Your task to perform on an android device: open chrome privacy settings Image 0: 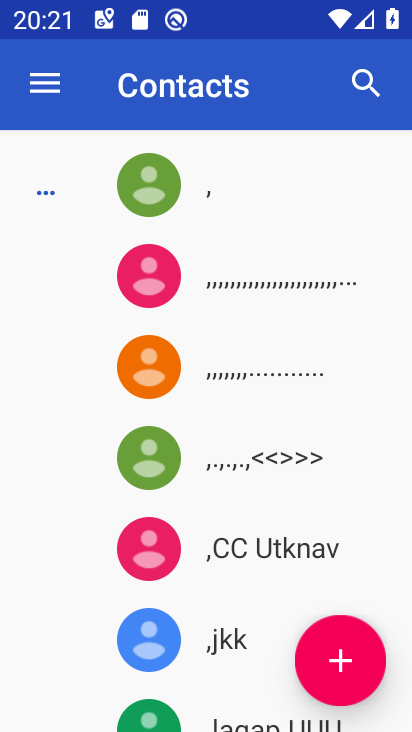
Step 0: press home button
Your task to perform on an android device: open chrome privacy settings Image 1: 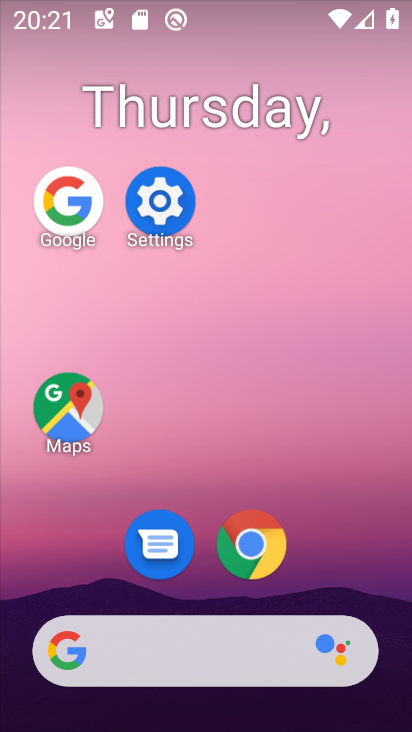
Step 1: drag from (222, 688) to (223, 241)
Your task to perform on an android device: open chrome privacy settings Image 2: 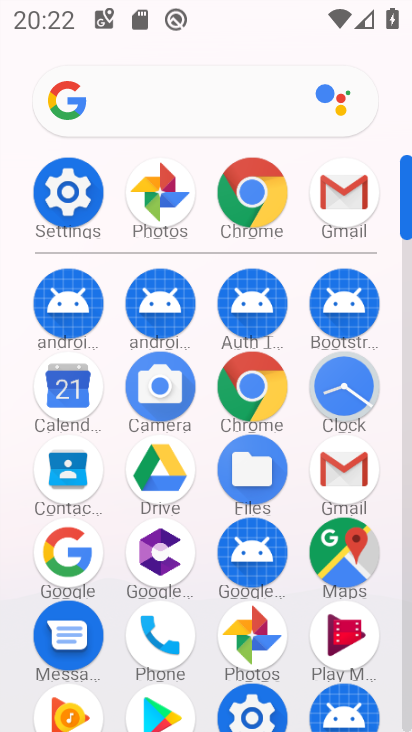
Step 2: click (73, 205)
Your task to perform on an android device: open chrome privacy settings Image 3: 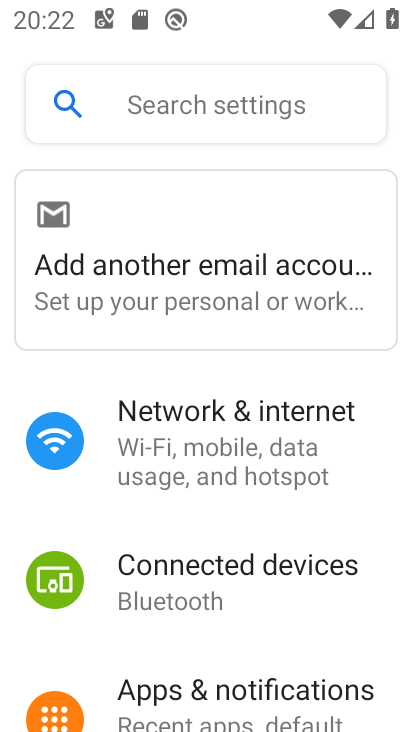
Step 3: press home button
Your task to perform on an android device: open chrome privacy settings Image 4: 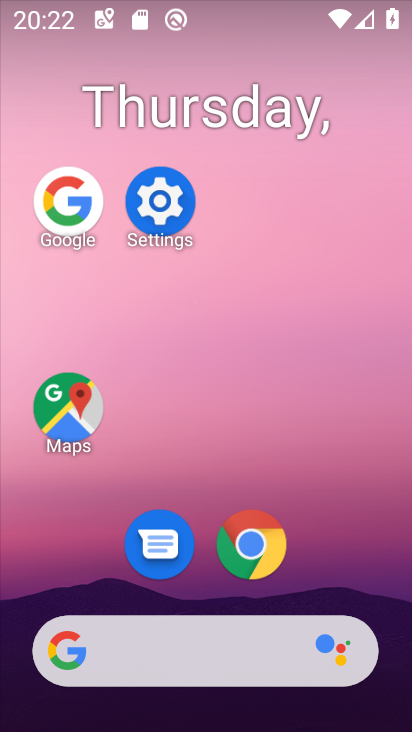
Step 4: drag from (263, 700) to (239, 356)
Your task to perform on an android device: open chrome privacy settings Image 5: 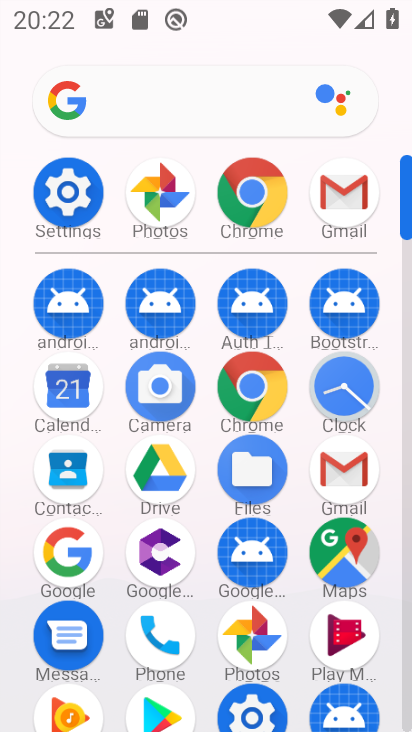
Step 5: click (79, 203)
Your task to perform on an android device: open chrome privacy settings Image 6: 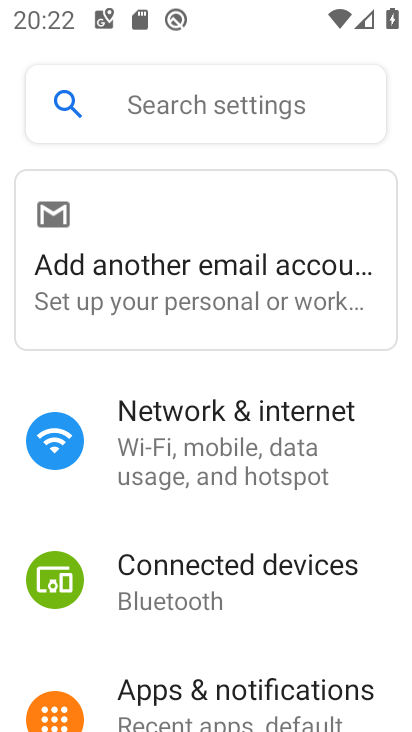
Step 6: press home button
Your task to perform on an android device: open chrome privacy settings Image 7: 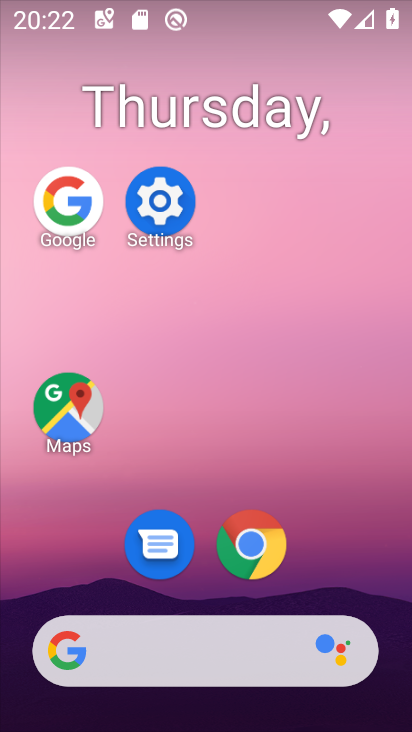
Step 7: click (270, 546)
Your task to perform on an android device: open chrome privacy settings Image 8: 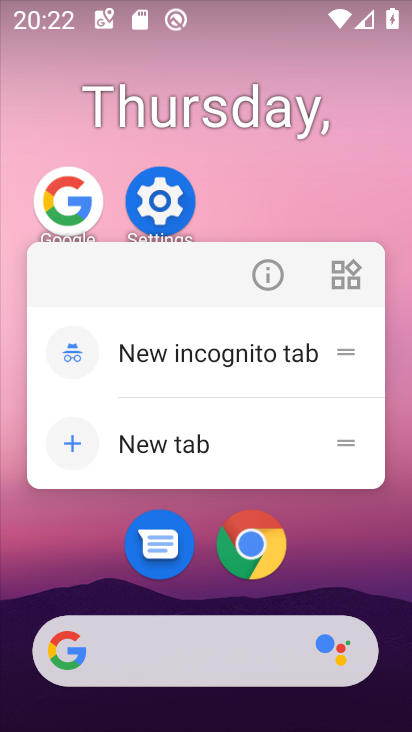
Step 8: click (262, 553)
Your task to perform on an android device: open chrome privacy settings Image 9: 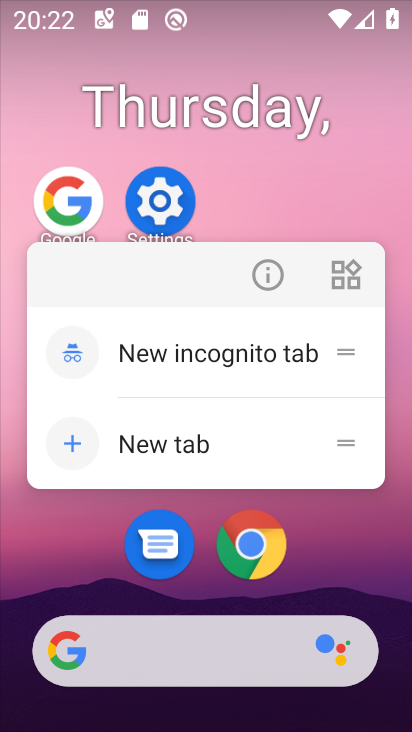
Step 9: click (266, 698)
Your task to perform on an android device: open chrome privacy settings Image 10: 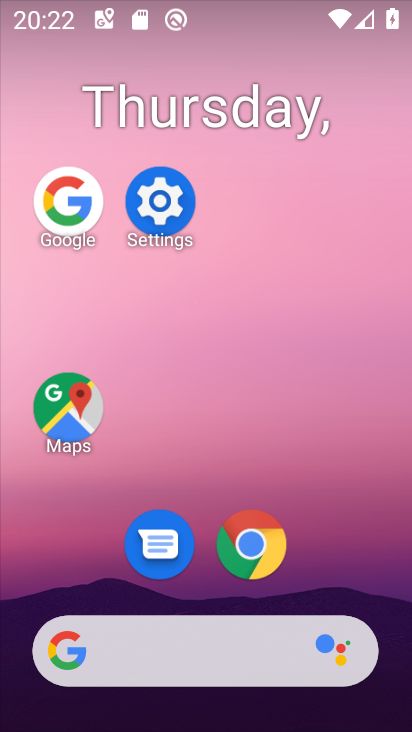
Step 10: drag from (266, 698) to (252, 130)
Your task to perform on an android device: open chrome privacy settings Image 11: 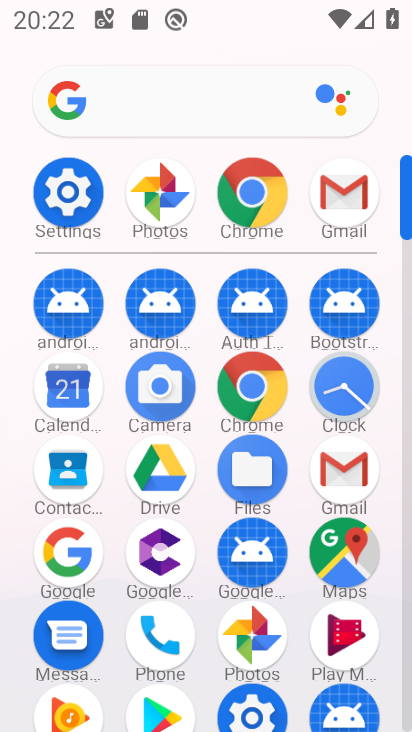
Step 11: click (251, 186)
Your task to perform on an android device: open chrome privacy settings Image 12: 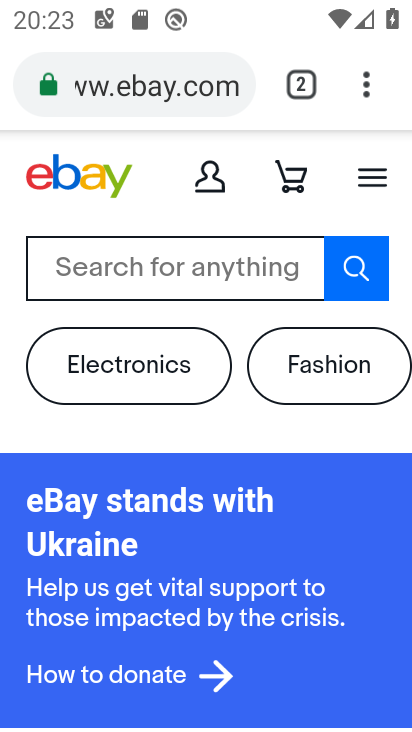
Step 12: click (363, 92)
Your task to perform on an android device: open chrome privacy settings Image 13: 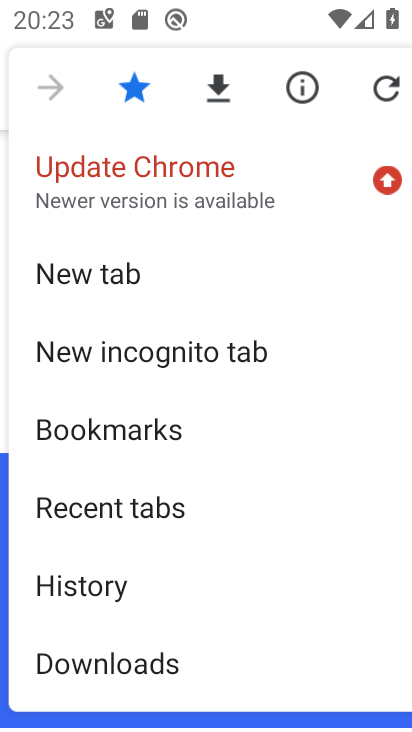
Step 13: drag from (141, 494) to (163, 341)
Your task to perform on an android device: open chrome privacy settings Image 14: 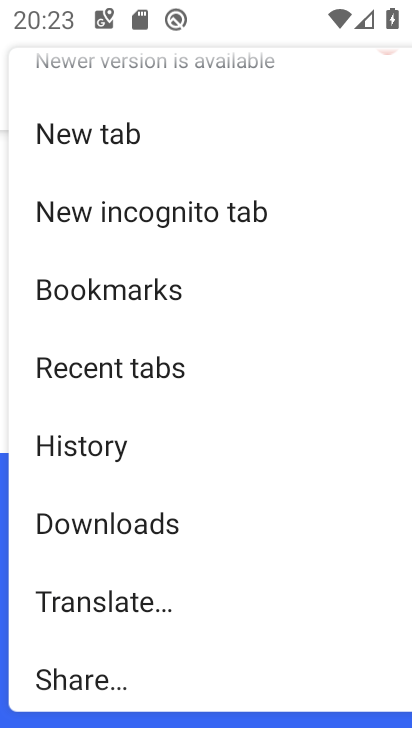
Step 14: drag from (130, 522) to (158, 213)
Your task to perform on an android device: open chrome privacy settings Image 15: 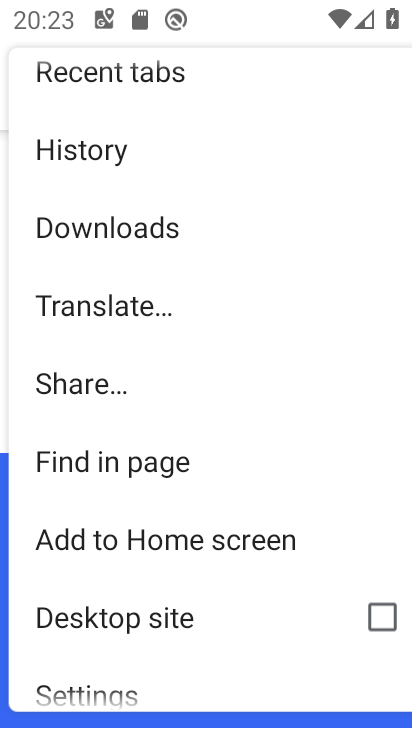
Step 15: click (91, 688)
Your task to perform on an android device: open chrome privacy settings Image 16: 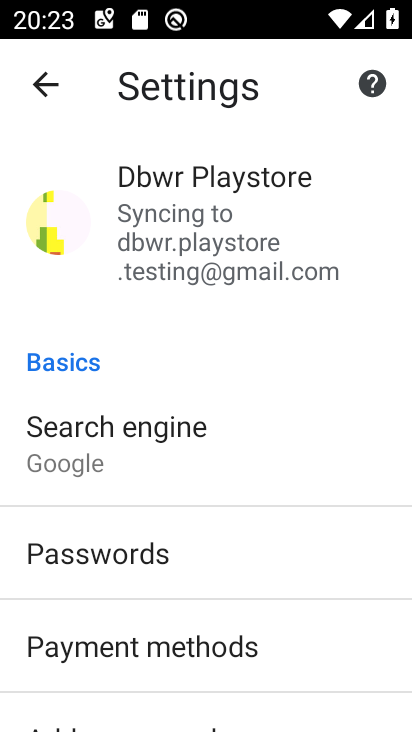
Step 16: drag from (145, 637) to (156, 318)
Your task to perform on an android device: open chrome privacy settings Image 17: 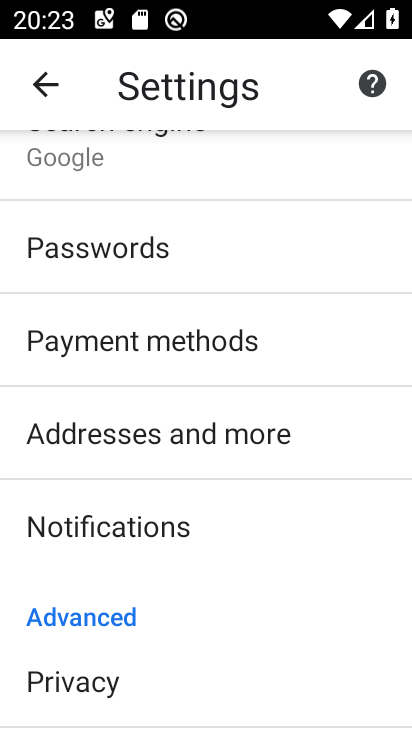
Step 17: click (69, 671)
Your task to perform on an android device: open chrome privacy settings Image 18: 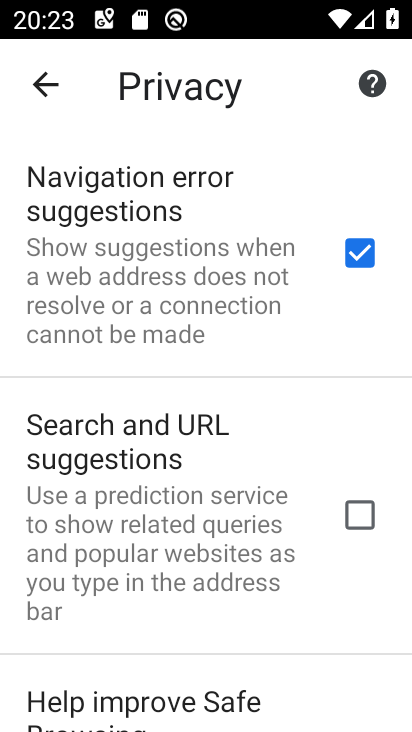
Step 18: task complete